Your task to perform on an android device: Search for the best rated drill on Lowes.com Image 0: 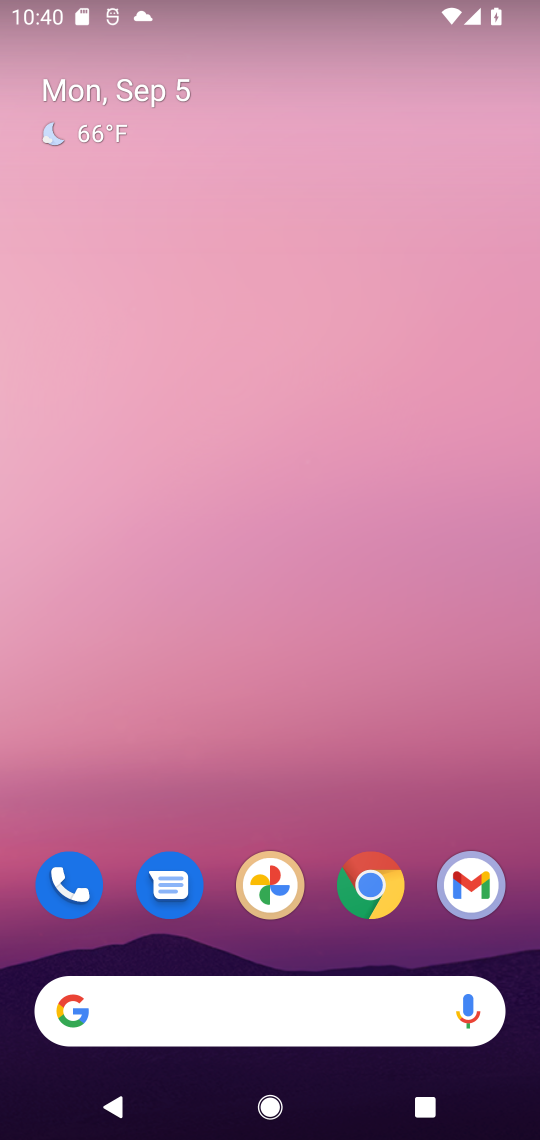
Step 0: drag from (330, 952) to (358, 108)
Your task to perform on an android device: Search for the best rated drill on Lowes.com Image 1: 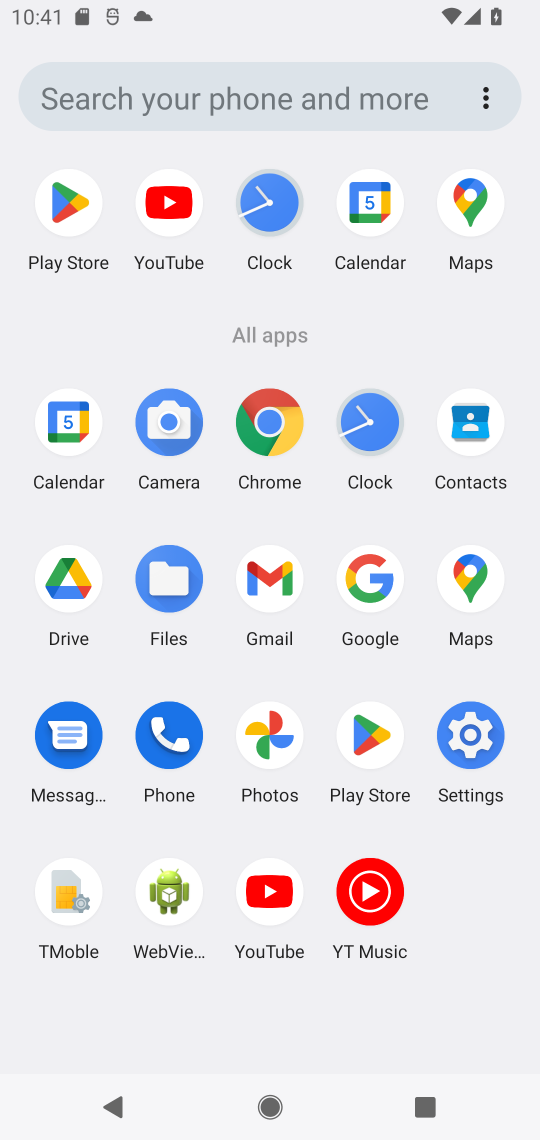
Step 1: click (265, 420)
Your task to perform on an android device: Search for the best rated drill on Lowes.com Image 2: 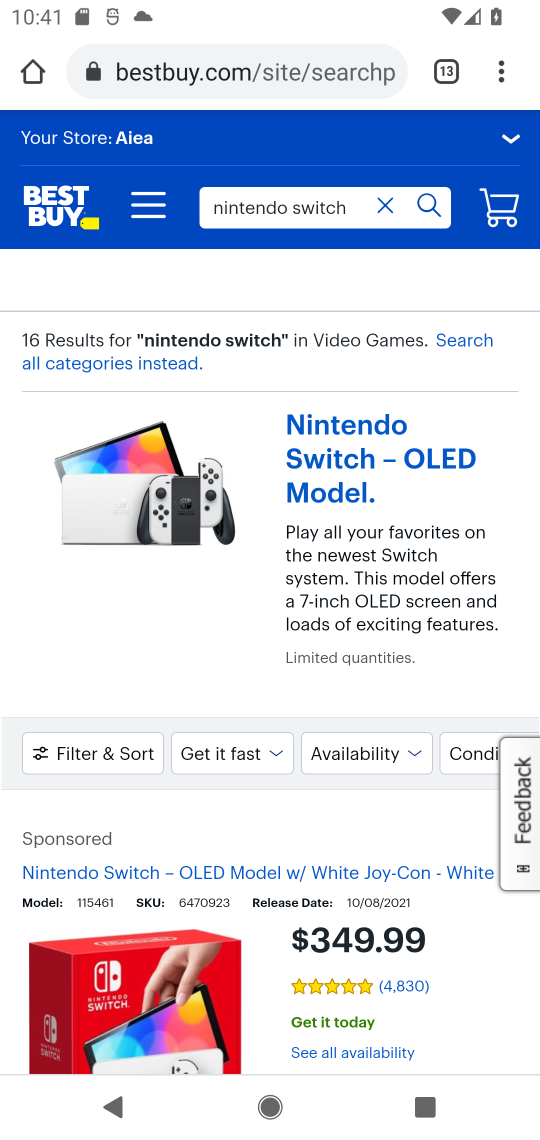
Step 2: drag from (502, 84) to (266, 249)
Your task to perform on an android device: Search for the best rated drill on Lowes.com Image 3: 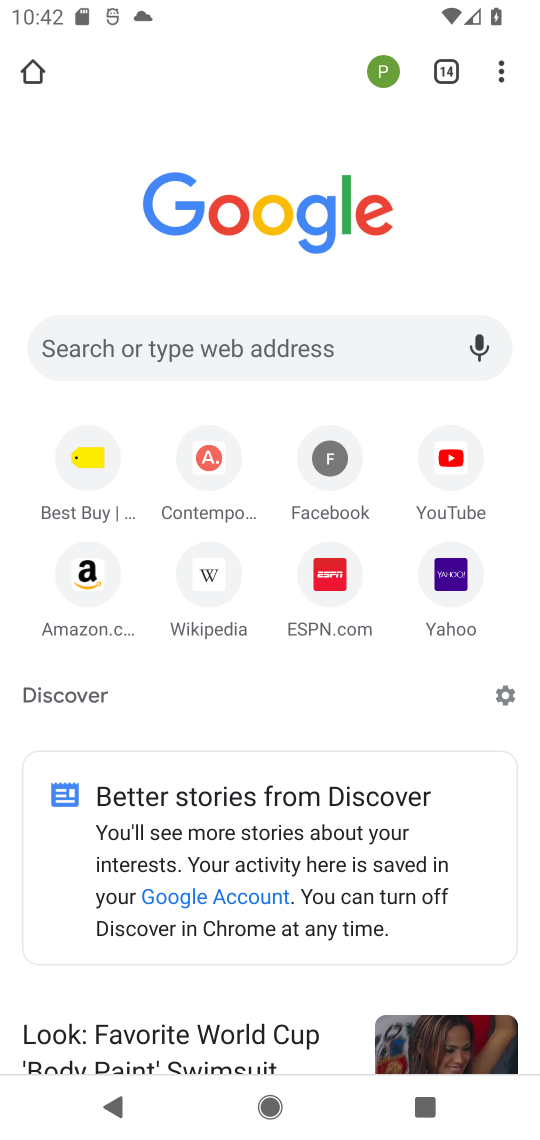
Step 3: click (272, 348)
Your task to perform on an android device: Search for the best rated drill on Lowes.com Image 4: 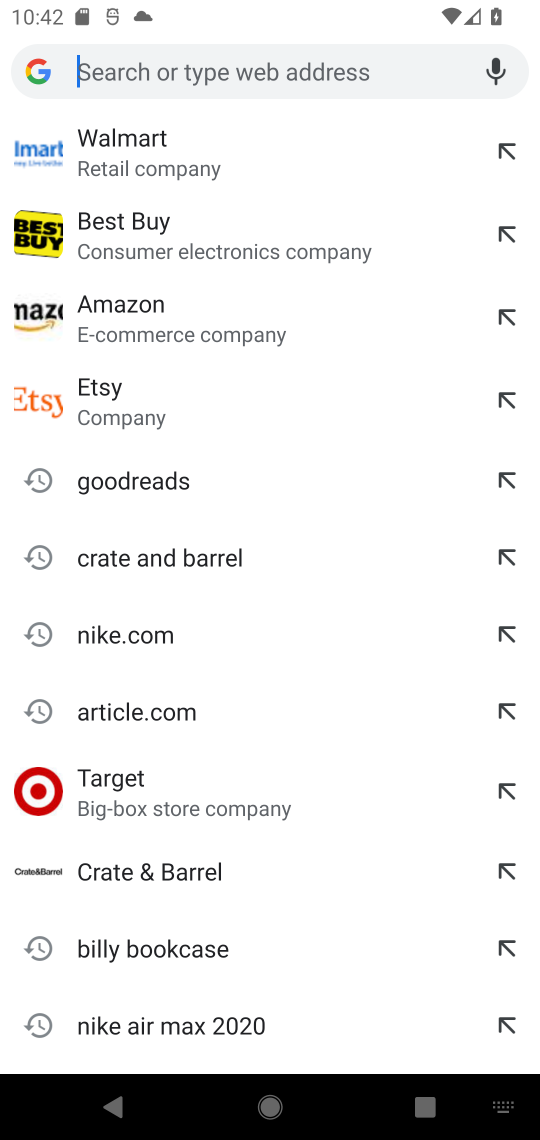
Step 4: type "Lowes.com"
Your task to perform on an android device: Search for the best rated drill on Lowes.com Image 5: 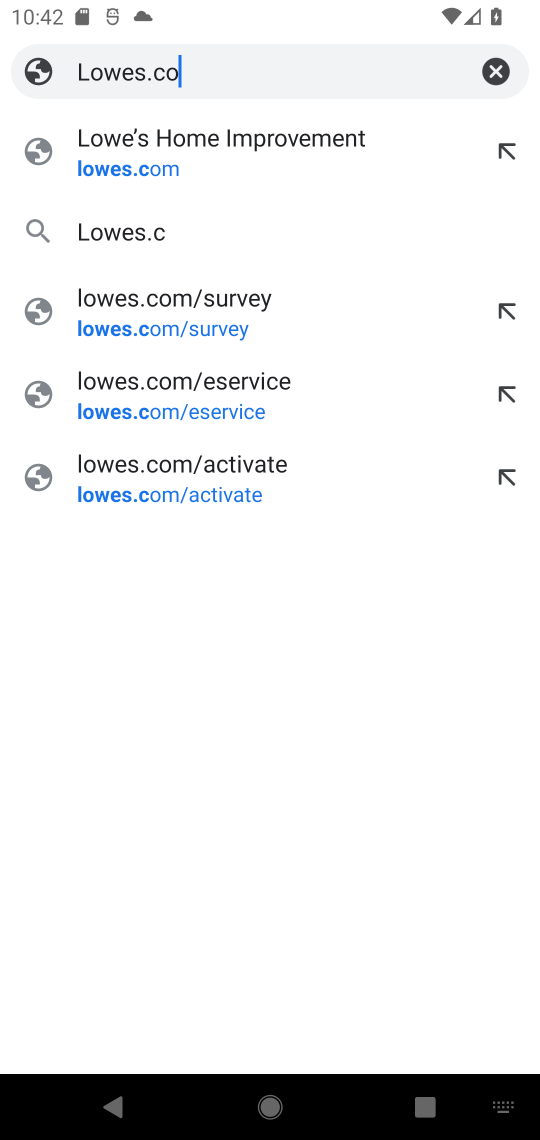
Step 5: type ""
Your task to perform on an android device: Search for the best rated drill on Lowes.com Image 6: 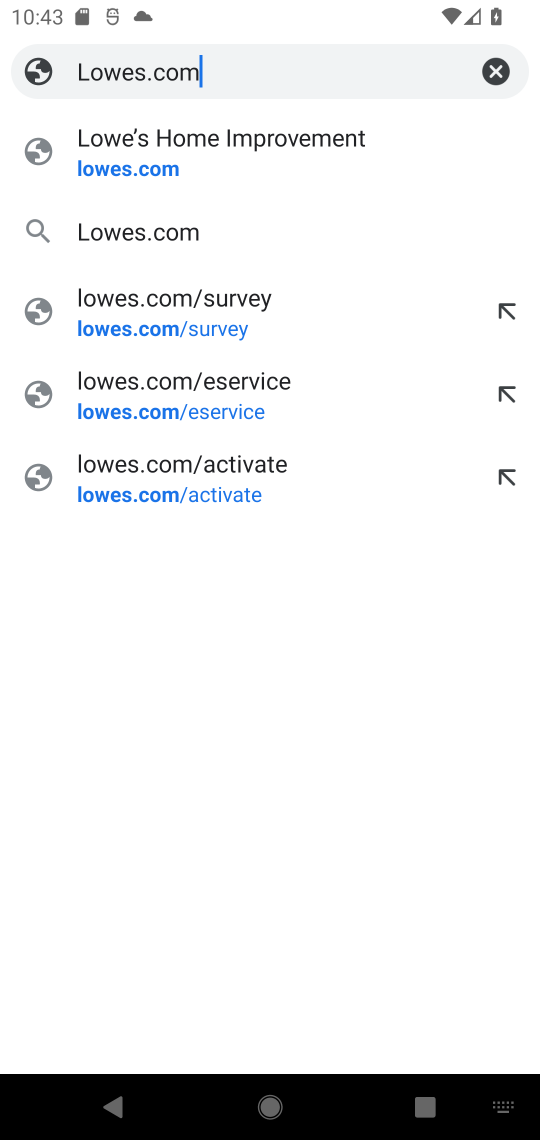
Step 6: click (167, 233)
Your task to perform on an android device: Search for the best rated drill on Lowes.com Image 7: 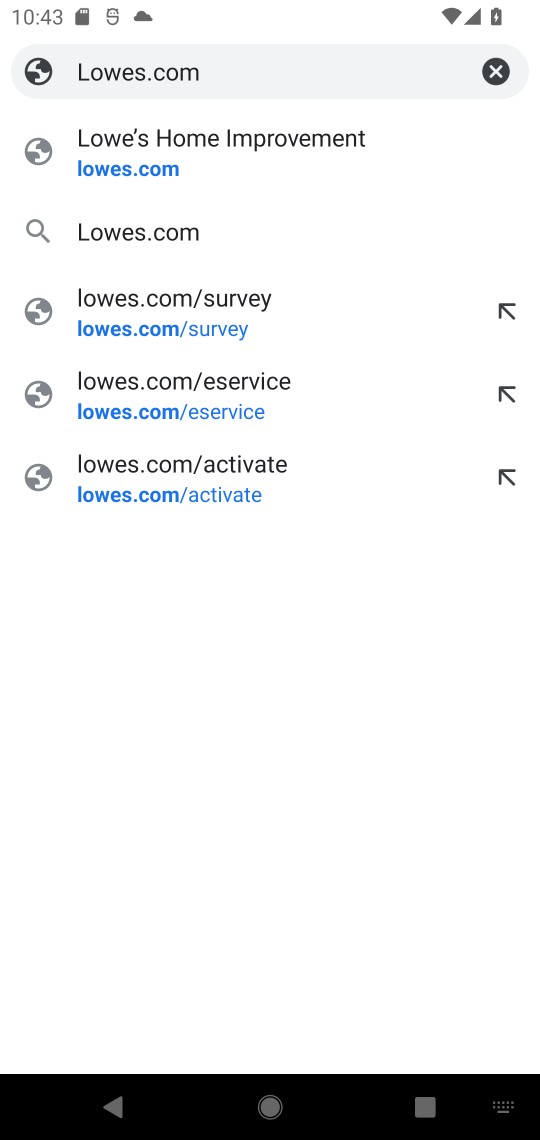
Step 7: click (133, 237)
Your task to perform on an android device: Search for the best rated drill on Lowes.com Image 8: 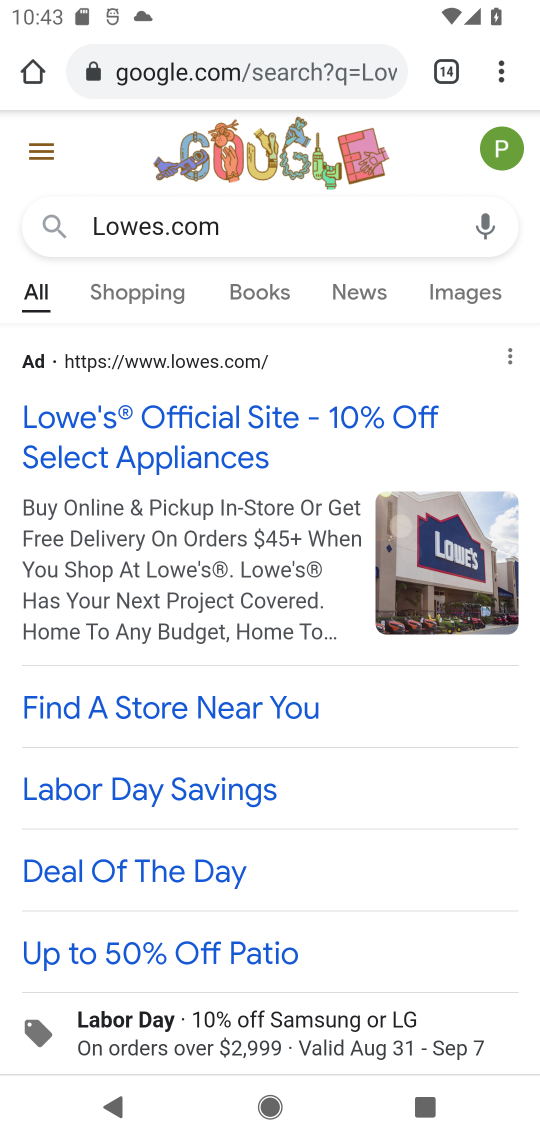
Step 8: click (160, 428)
Your task to perform on an android device: Search for the best rated drill on Lowes.com Image 9: 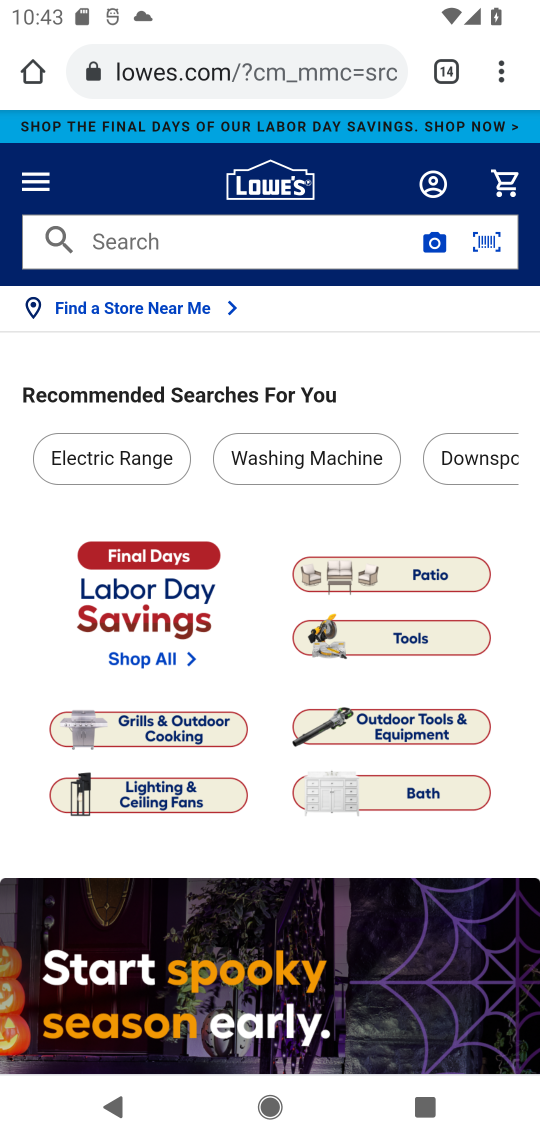
Step 9: click (173, 246)
Your task to perform on an android device: Search for the best rated drill on Lowes.com Image 10: 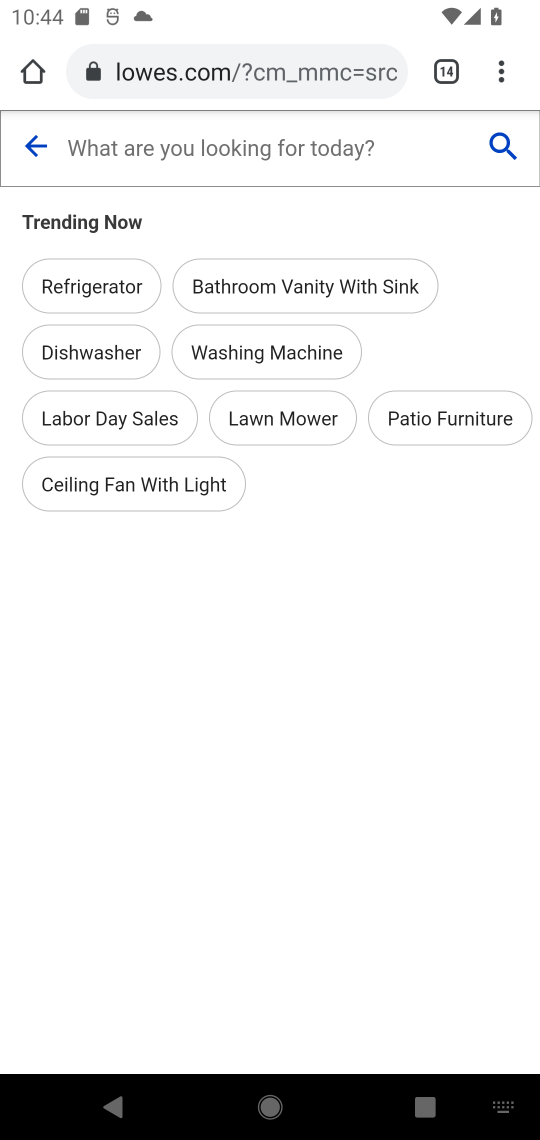
Step 10: type "drill"
Your task to perform on an android device: Search for the best rated drill on Lowes.com Image 11: 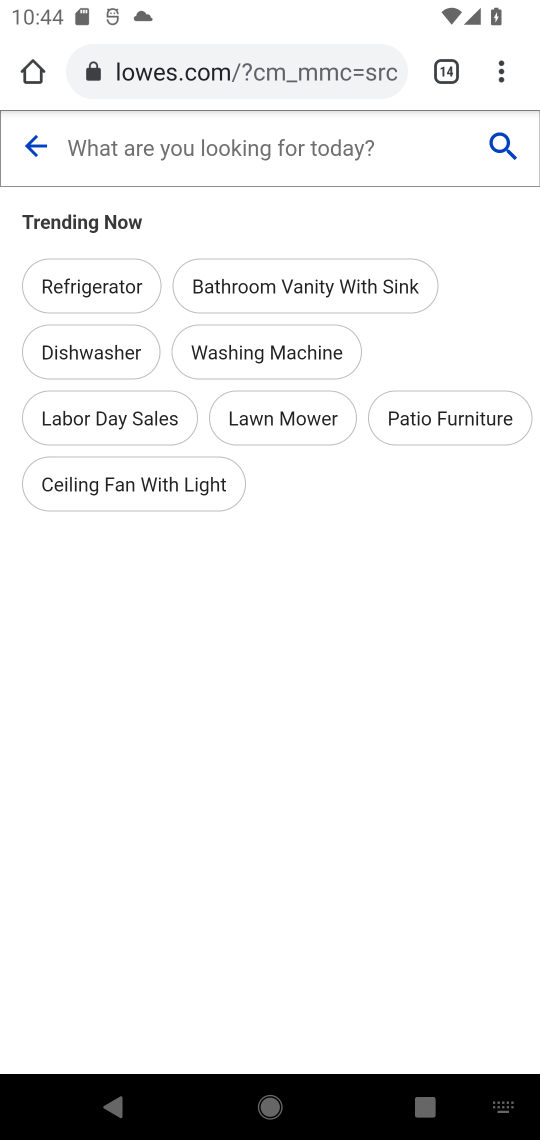
Step 11: type ""
Your task to perform on an android device: Search for the best rated drill on Lowes.com Image 12: 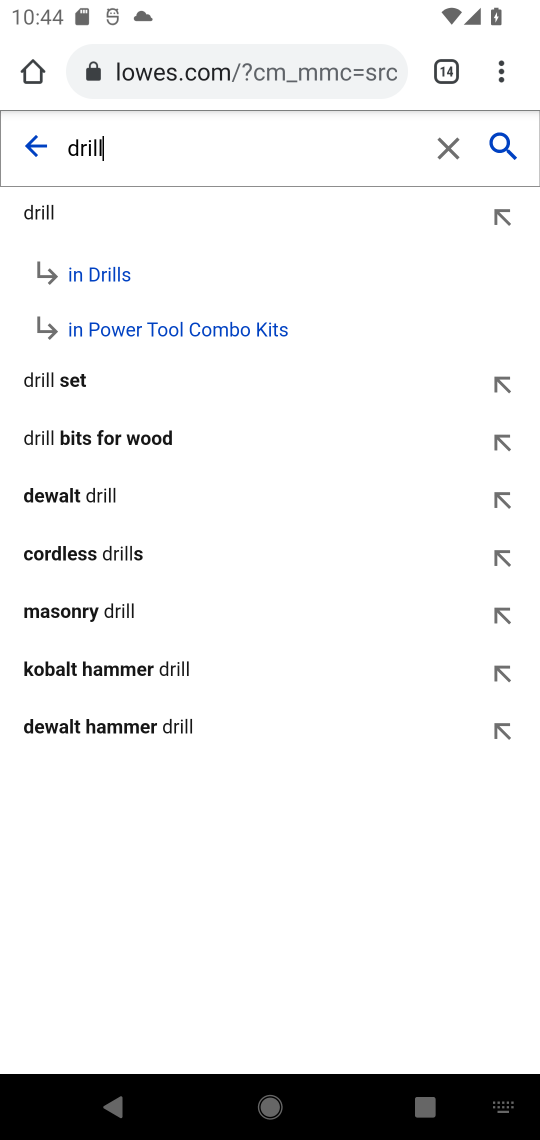
Step 12: click (40, 207)
Your task to perform on an android device: Search for the best rated drill on Lowes.com Image 13: 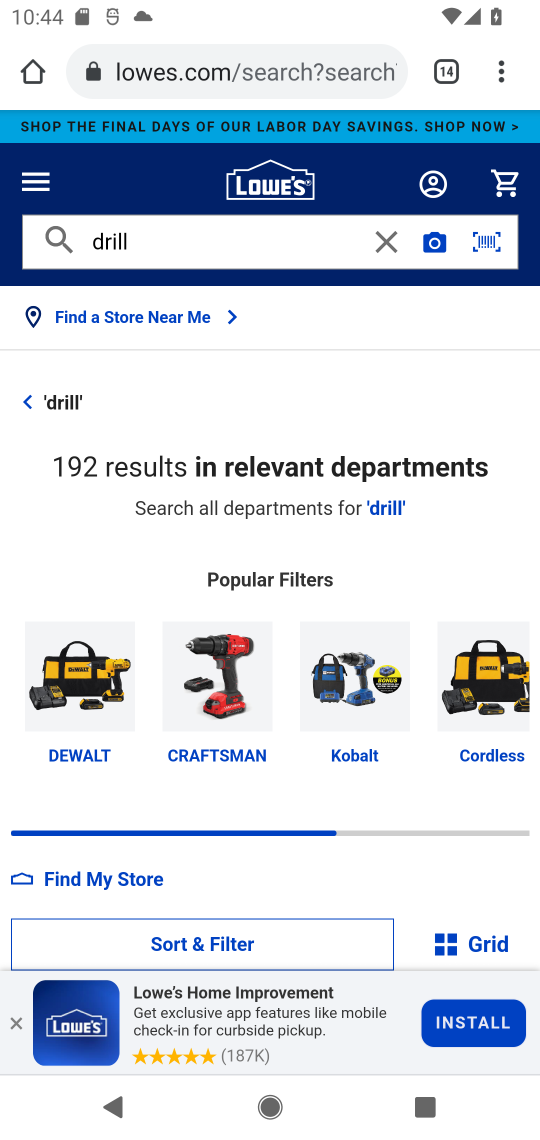
Step 13: task complete